Your task to perform on an android device: turn off location history Image 0: 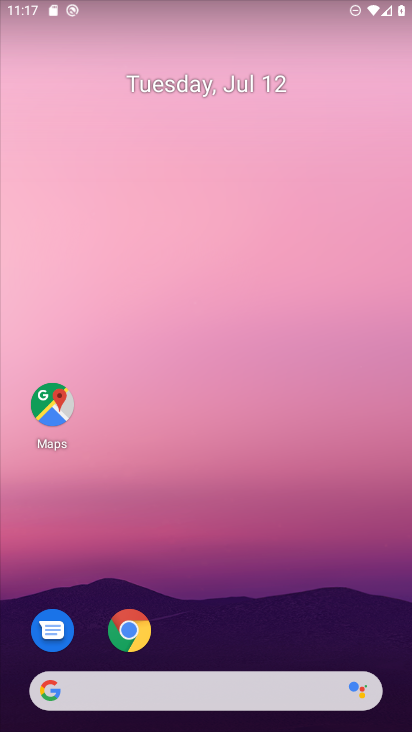
Step 0: drag from (275, 627) to (254, 161)
Your task to perform on an android device: turn off location history Image 1: 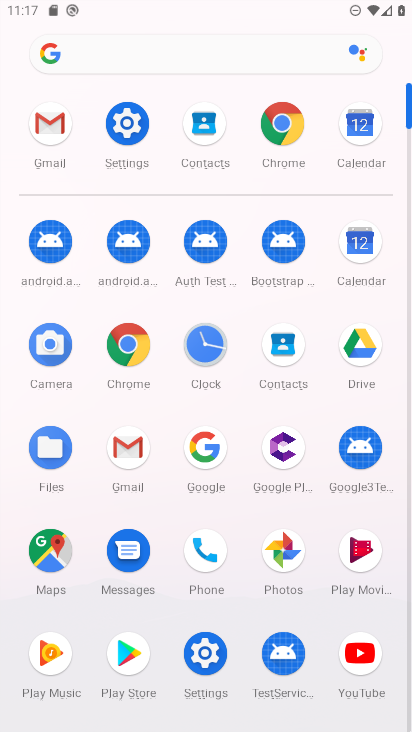
Step 1: click (121, 133)
Your task to perform on an android device: turn off location history Image 2: 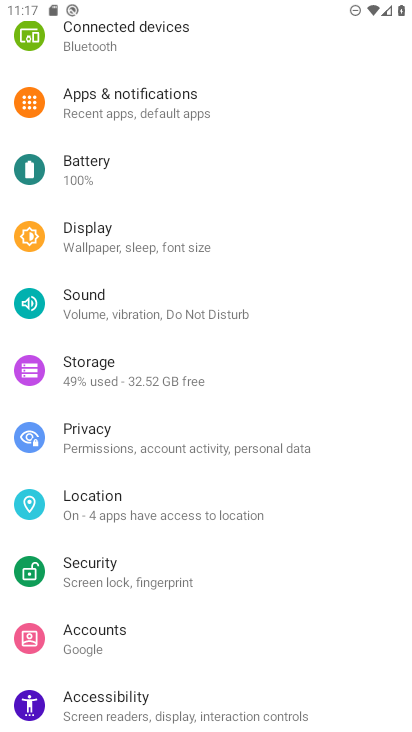
Step 2: click (164, 514)
Your task to perform on an android device: turn off location history Image 3: 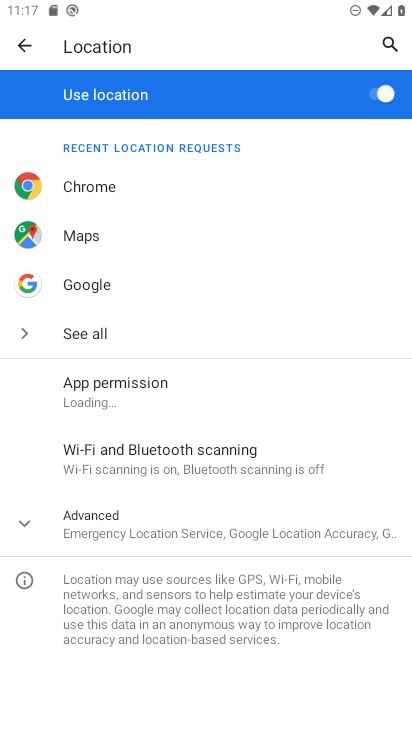
Step 3: click (146, 527)
Your task to perform on an android device: turn off location history Image 4: 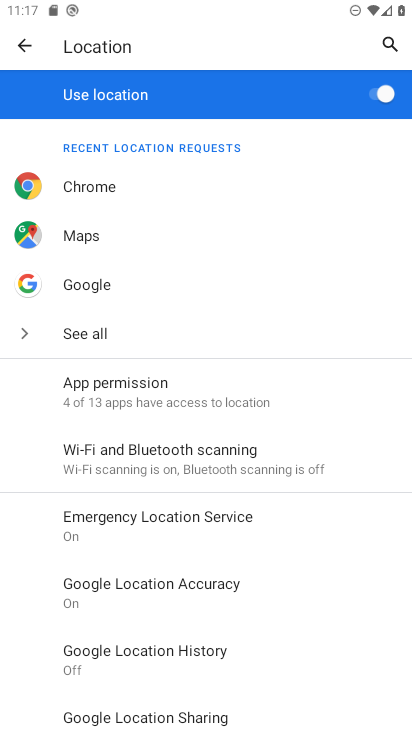
Step 4: click (218, 648)
Your task to perform on an android device: turn off location history Image 5: 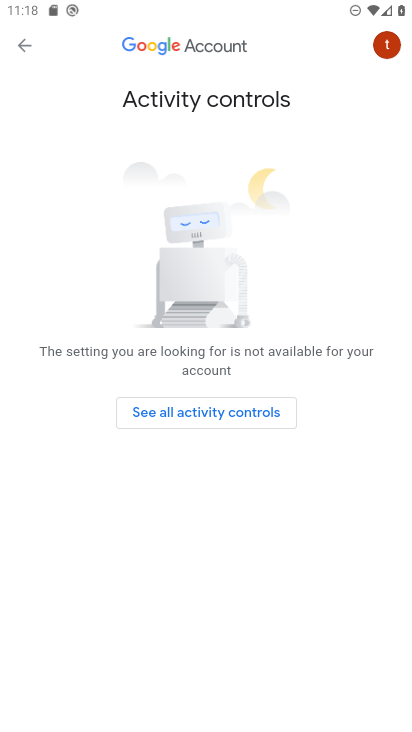
Step 5: task complete